Your task to perform on an android device: Go to Amazon Image 0: 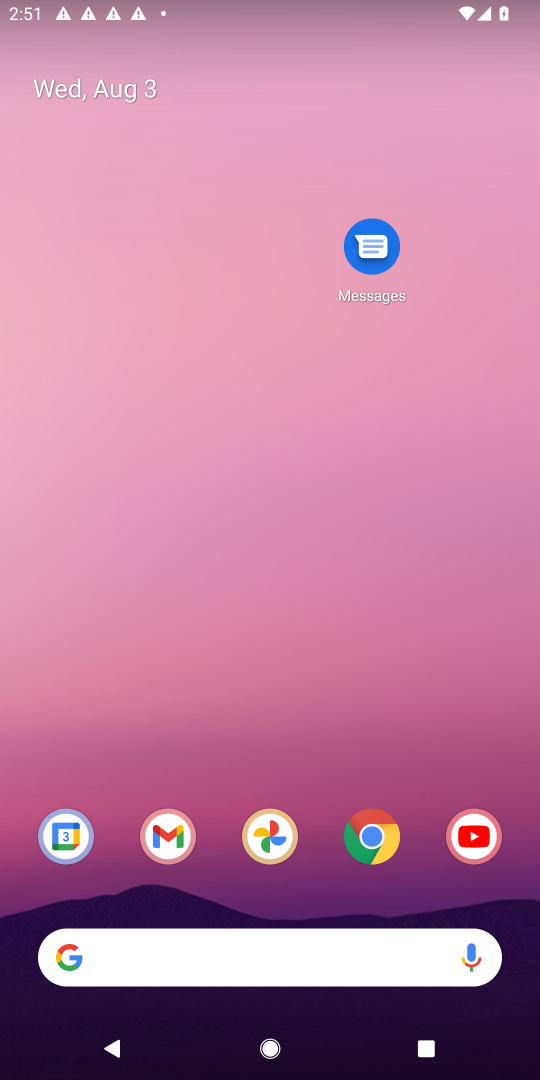
Step 0: drag from (95, 863) to (230, 320)
Your task to perform on an android device: Go to Amazon Image 1: 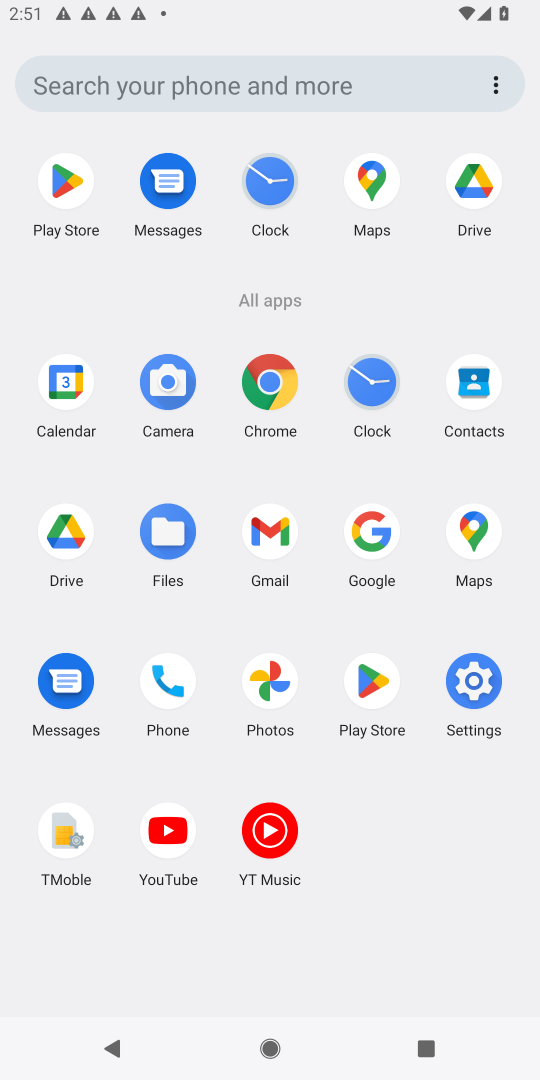
Step 1: click (119, 86)
Your task to perform on an android device: Go to Amazon Image 2: 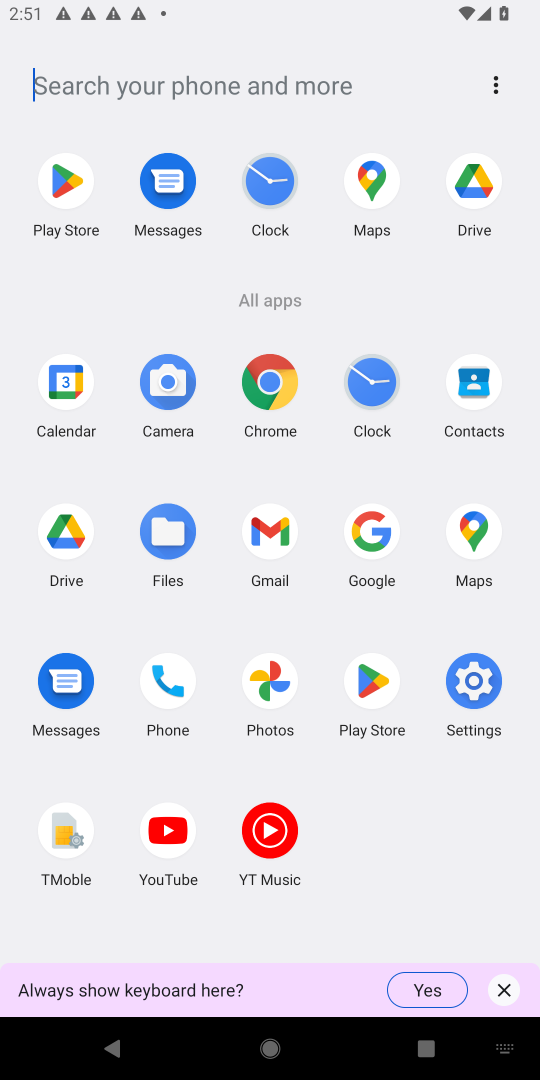
Step 2: type "Amazon"
Your task to perform on an android device: Go to Amazon Image 3: 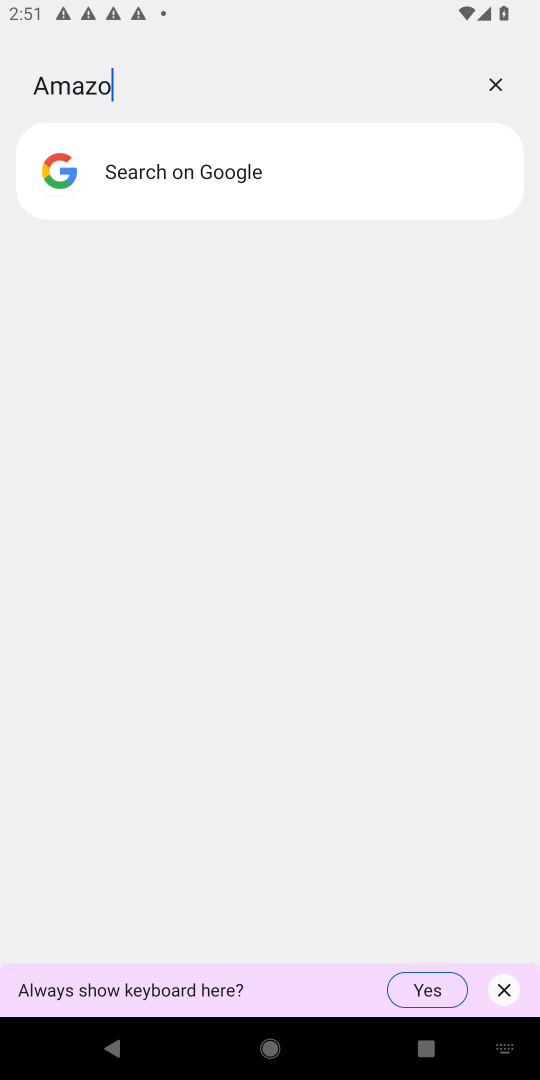
Step 3: type ""
Your task to perform on an android device: Go to Amazon Image 4: 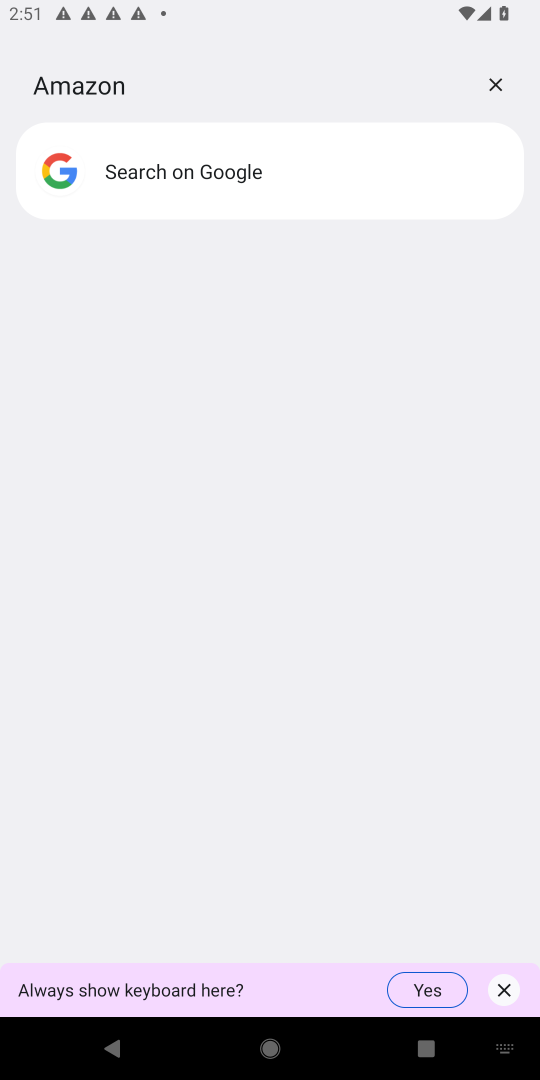
Step 4: type ""
Your task to perform on an android device: Go to Amazon Image 5: 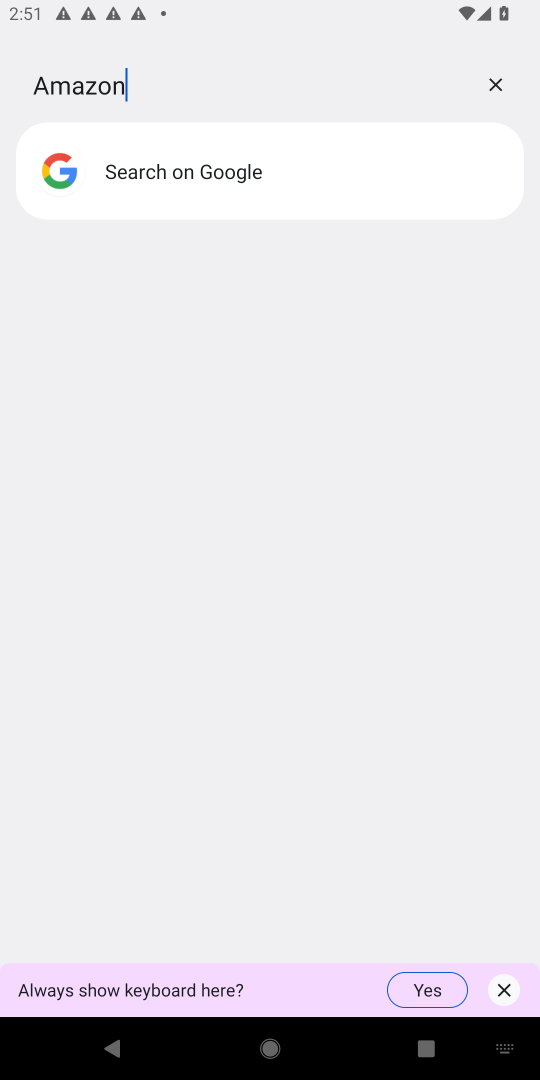
Step 5: type ""
Your task to perform on an android device: Go to Amazon Image 6: 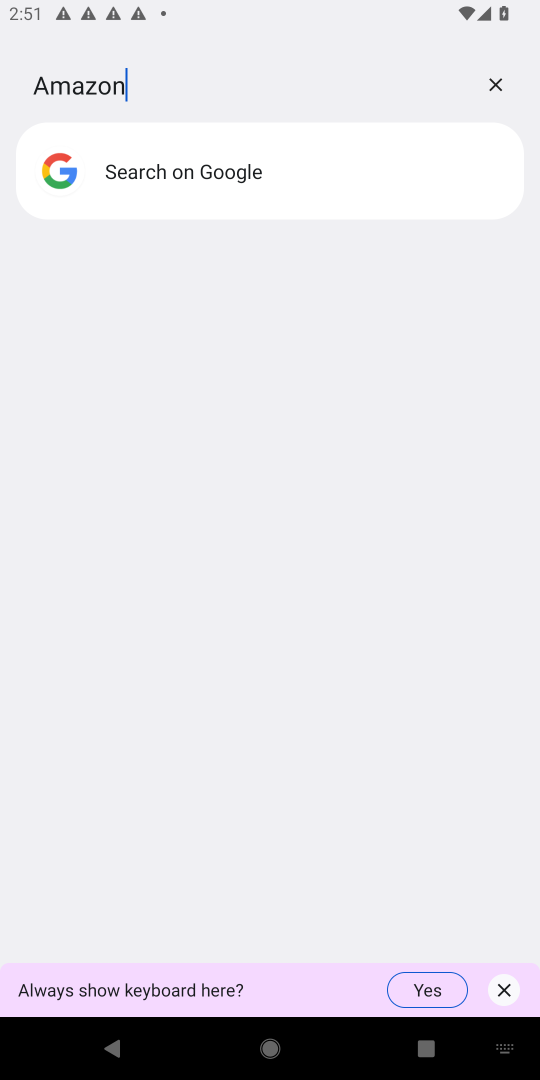
Step 6: type ""
Your task to perform on an android device: Go to Amazon Image 7: 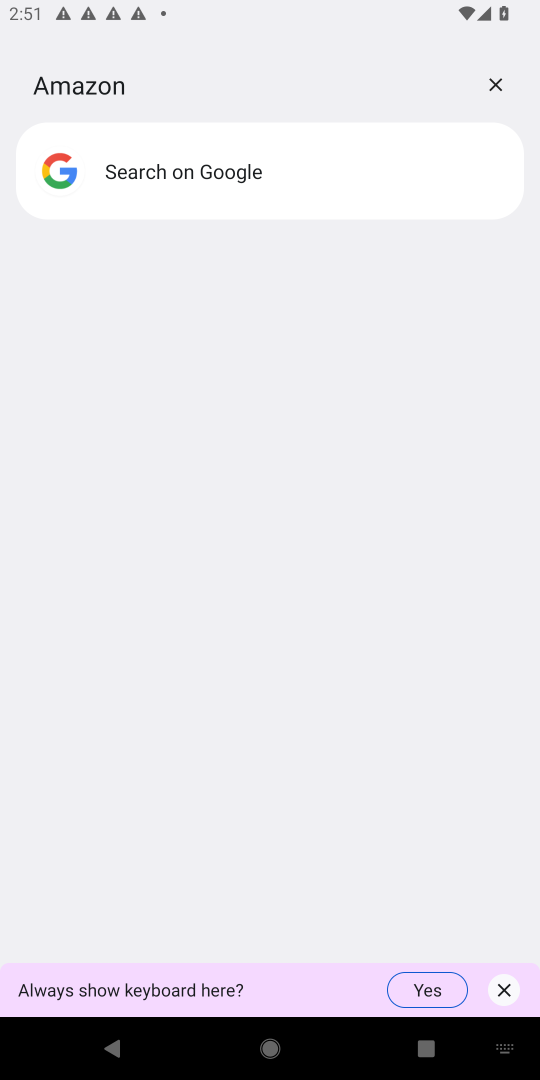
Step 7: click (178, 186)
Your task to perform on an android device: Go to Amazon Image 8: 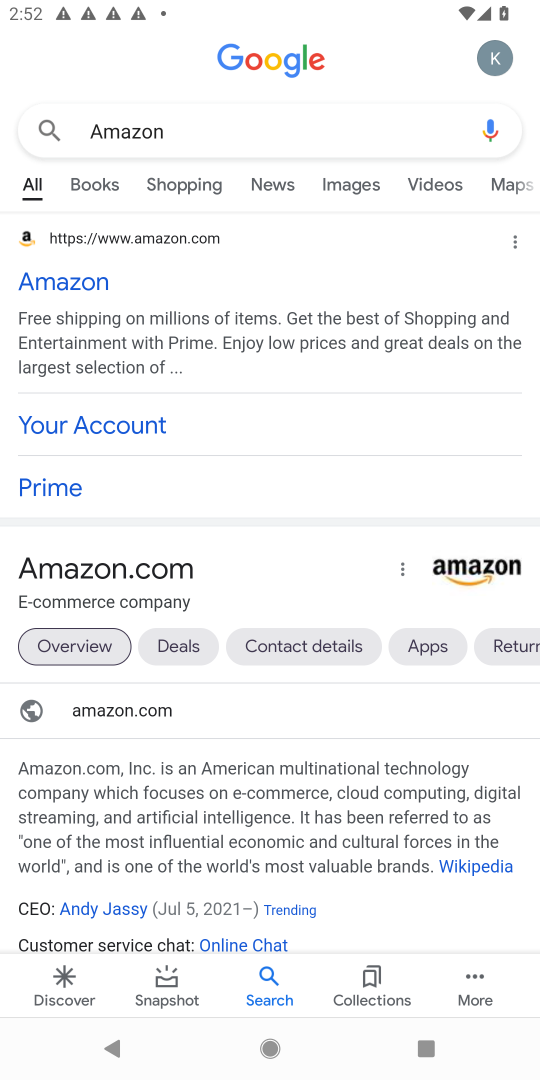
Step 8: task complete